Your task to perform on an android device: Open ESPN.com Image 0: 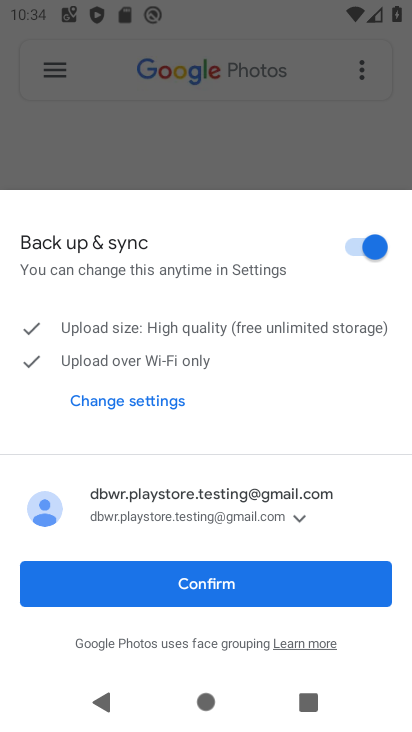
Step 0: click (266, 578)
Your task to perform on an android device: Open ESPN.com Image 1: 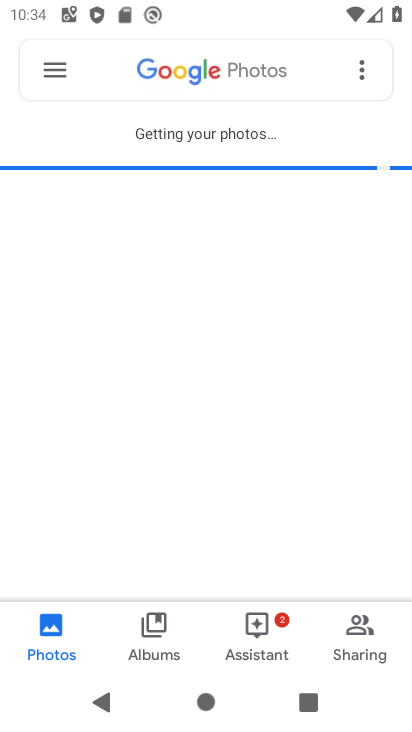
Step 1: press home button
Your task to perform on an android device: Open ESPN.com Image 2: 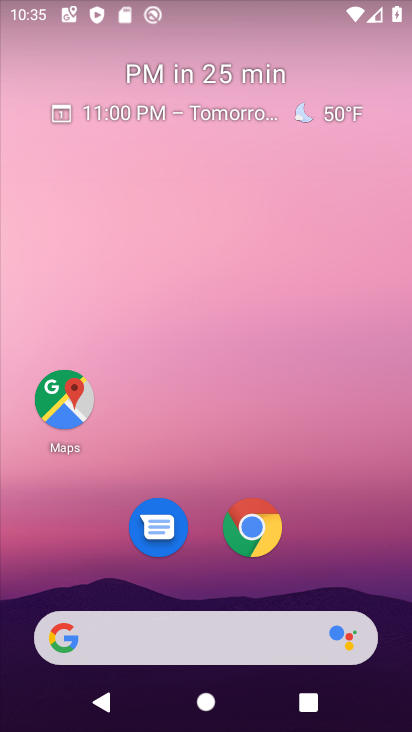
Step 2: drag from (374, 526) to (355, 127)
Your task to perform on an android device: Open ESPN.com Image 3: 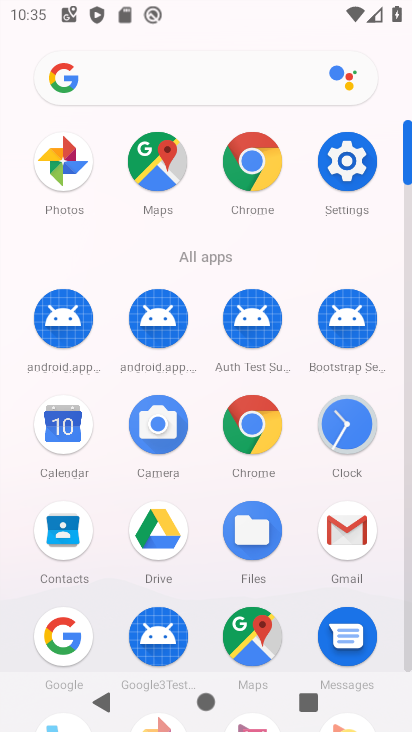
Step 3: click (272, 444)
Your task to perform on an android device: Open ESPN.com Image 4: 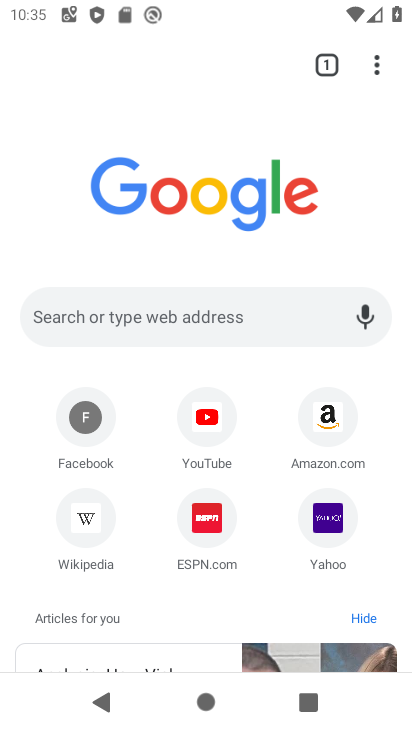
Step 4: click (194, 314)
Your task to perform on an android device: Open ESPN.com Image 5: 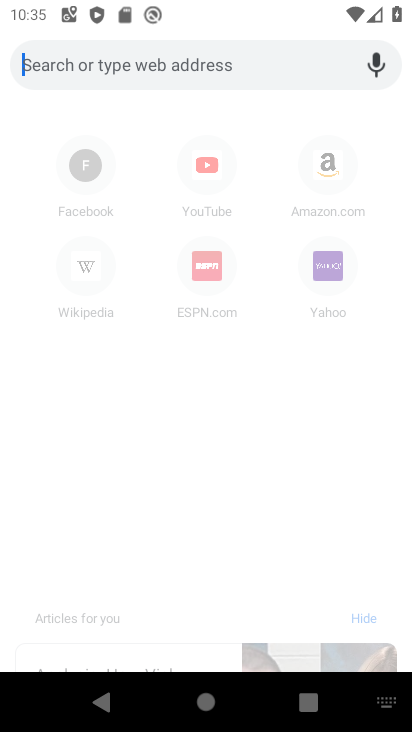
Step 5: type "espn.com"
Your task to perform on an android device: Open ESPN.com Image 6: 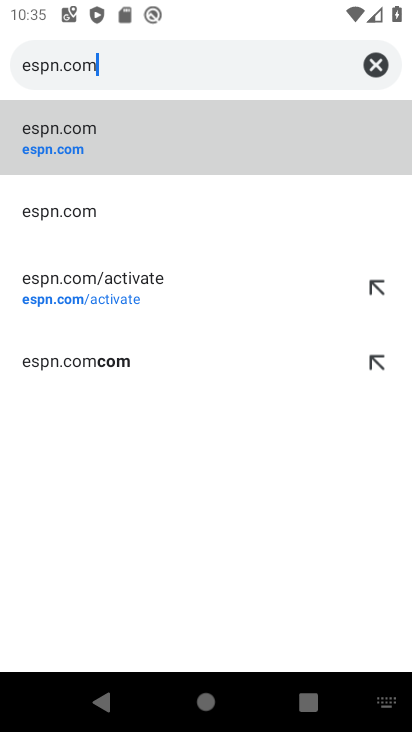
Step 6: click (80, 126)
Your task to perform on an android device: Open ESPN.com Image 7: 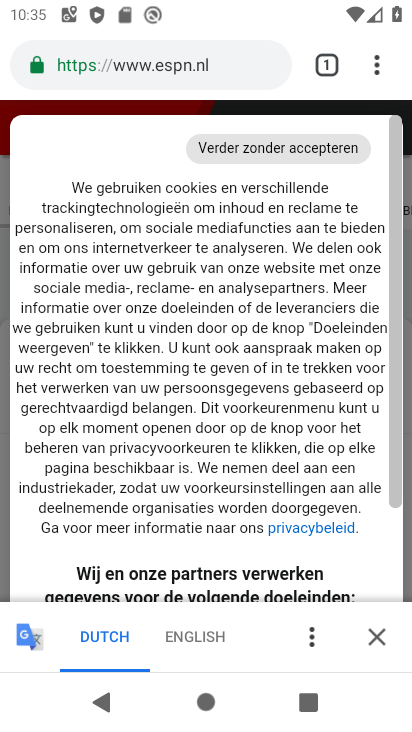
Step 7: click (376, 640)
Your task to perform on an android device: Open ESPN.com Image 8: 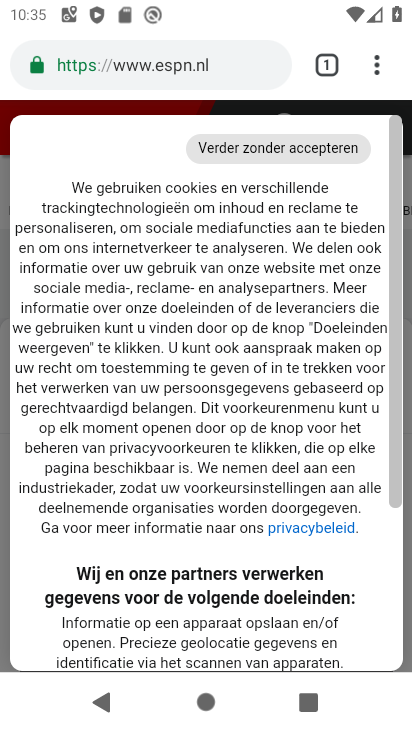
Step 8: task complete